Your task to perform on an android device: Find coffee shops on Maps Image 0: 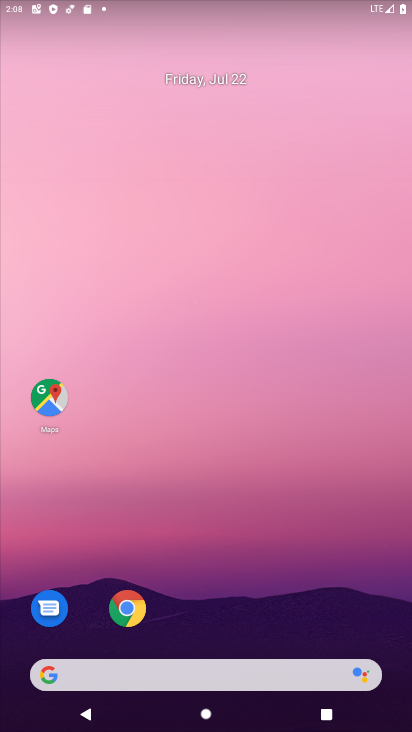
Step 0: click (41, 382)
Your task to perform on an android device: Find coffee shops on Maps Image 1: 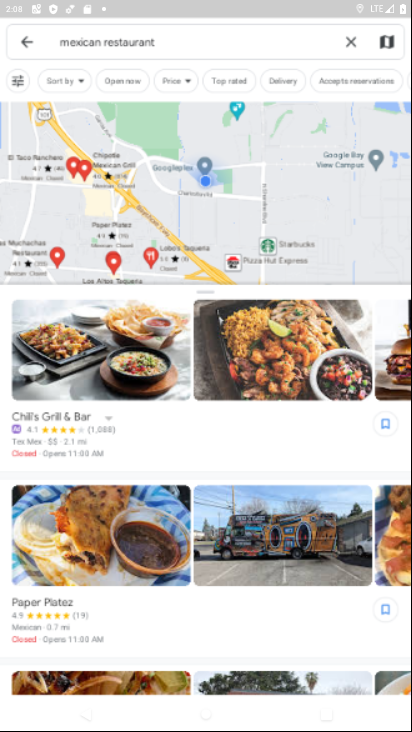
Step 1: click (352, 38)
Your task to perform on an android device: Find coffee shops on Maps Image 2: 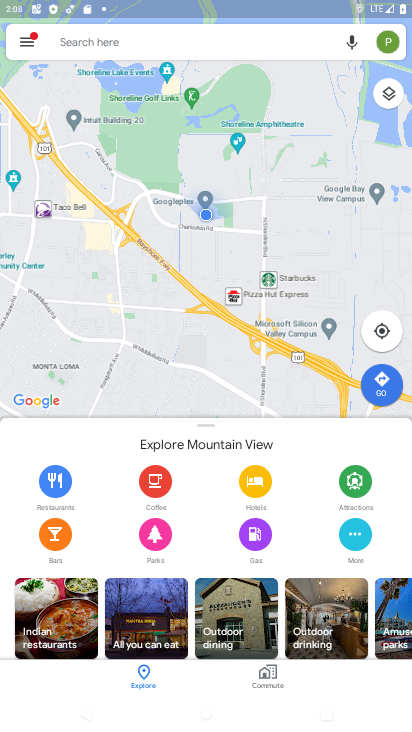
Step 2: click (97, 44)
Your task to perform on an android device: Find coffee shops on Maps Image 3: 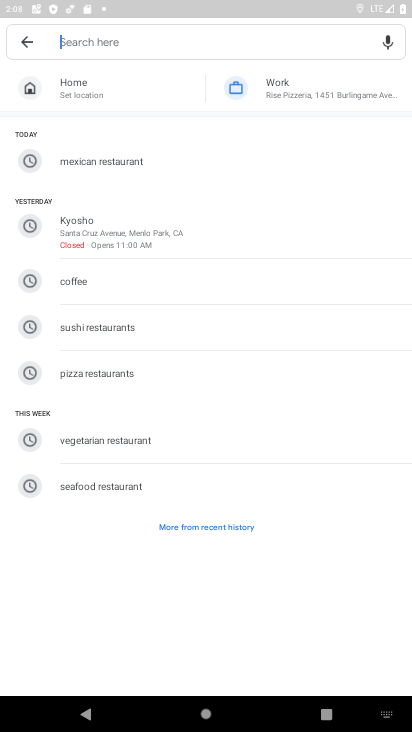
Step 3: type "coffee shops"
Your task to perform on an android device: Find coffee shops on Maps Image 4: 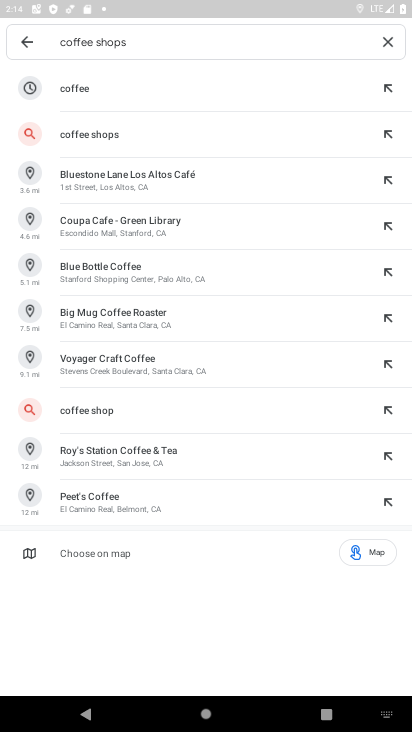
Step 4: click (99, 134)
Your task to perform on an android device: Find coffee shops on Maps Image 5: 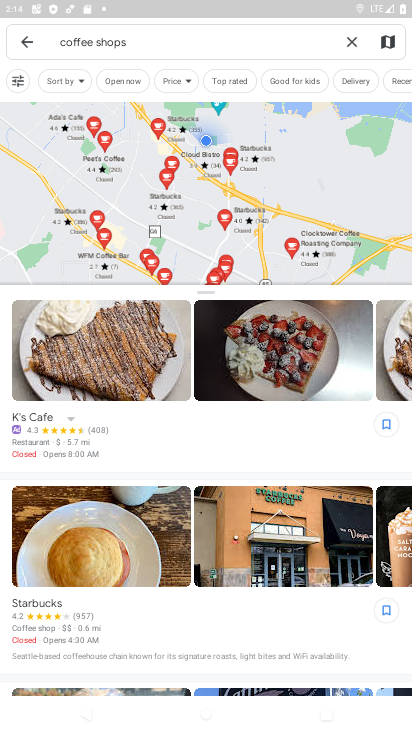
Step 5: task complete